Your task to perform on an android device: turn on wifi Image 0: 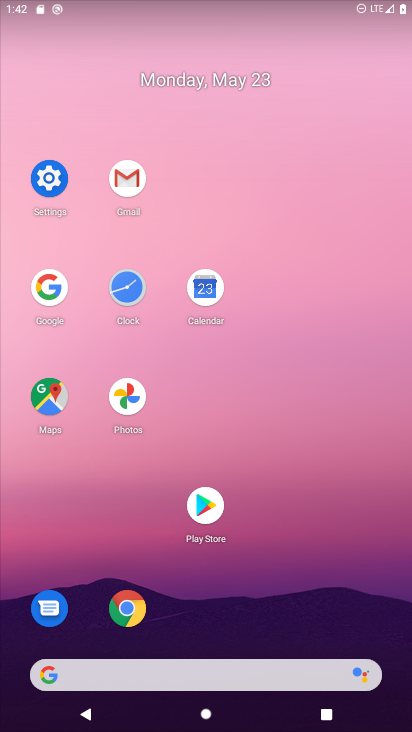
Step 0: click (62, 190)
Your task to perform on an android device: turn on wifi Image 1: 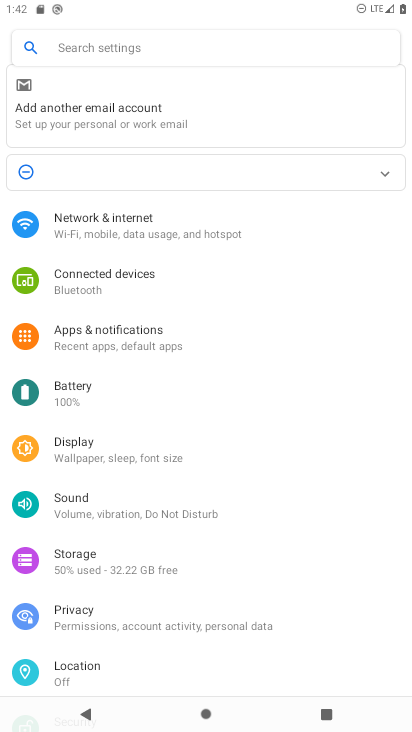
Step 1: click (143, 233)
Your task to perform on an android device: turn on wifi Image 2: 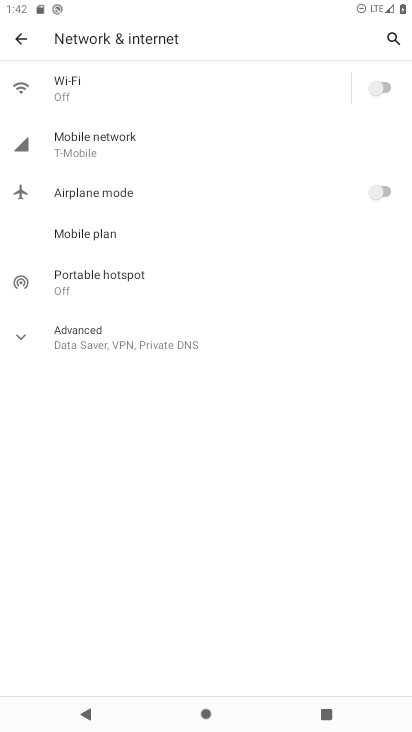
Step 2: click (388, 81)
Your task to perform on an android device: turn on wifi Image 3: 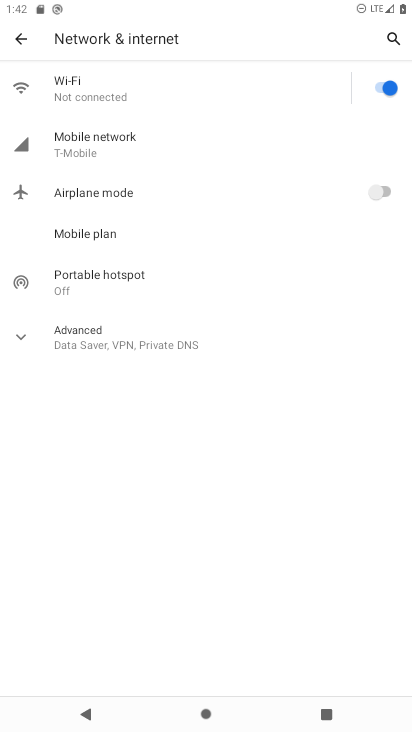
Step 3: task complete